Your task to perform on an android device: Open the web browser Image 0: 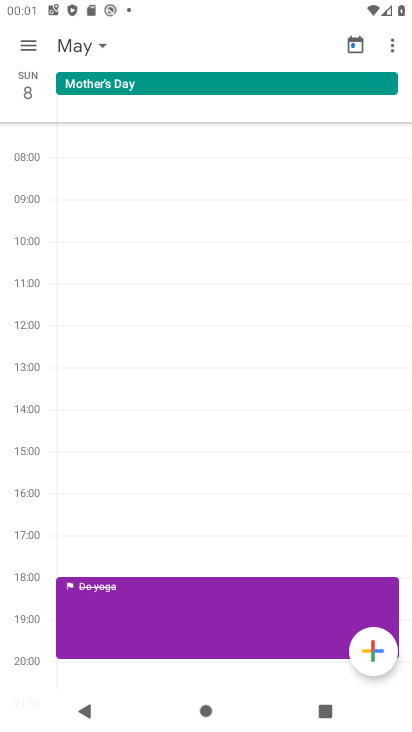
Step 0: press home button
Your task to perform on an android device: Open the web browser Image 1: 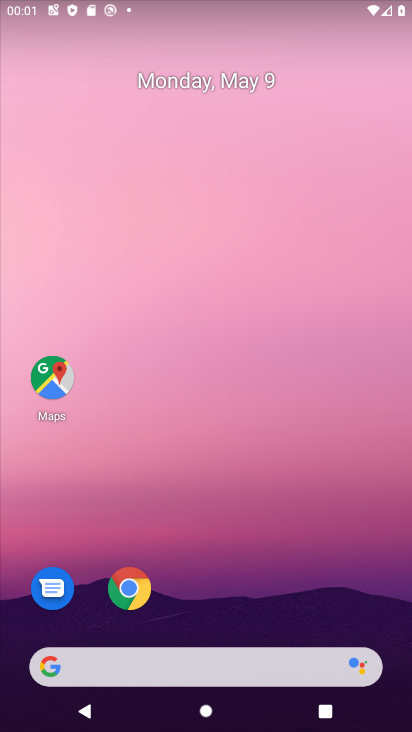
Step 1: click (132, 581)
Your task to perform on an android device: Open the web browser Image 2: 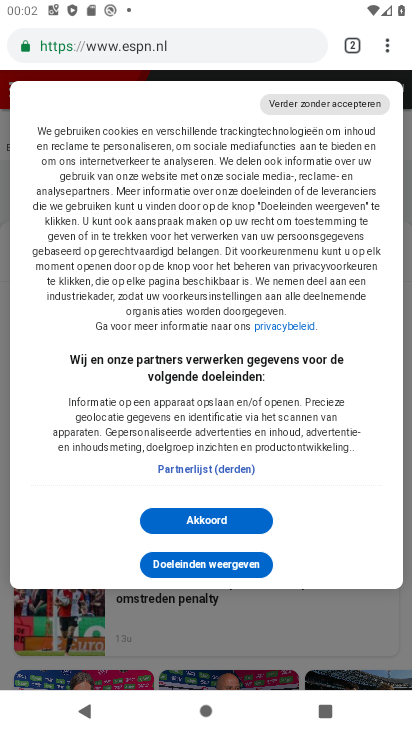
Step 2: task complete